Your task to perform on an android device: turn on priority inbox in the gmail app Image 0: 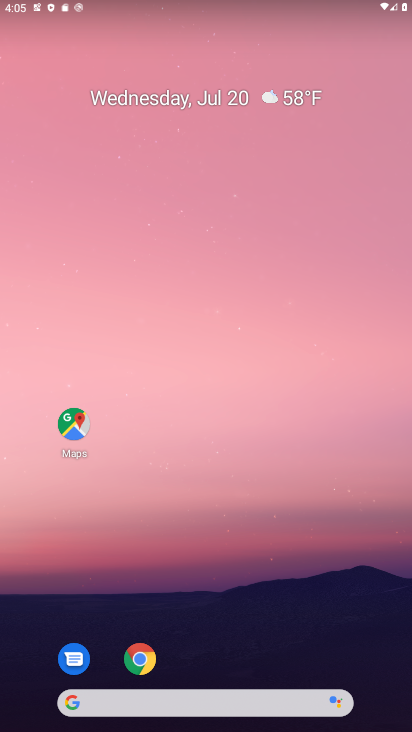
Step 0: drag from (280, 587) to (224, 169)
Your task to perform on an android device: turn on priority inbox in the gmail app Image 1: 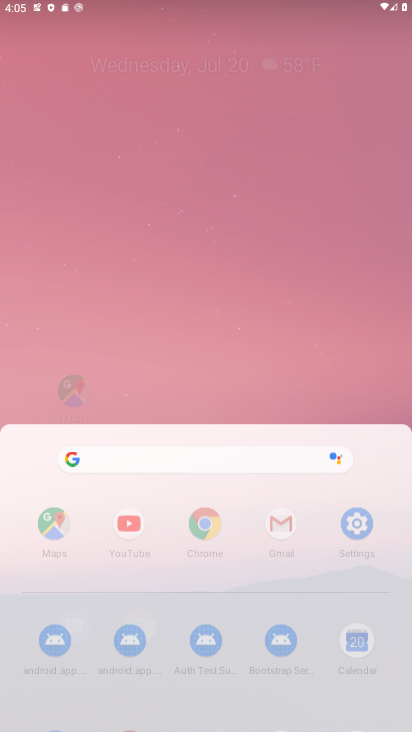
Step 1: drag from (169, 580) to (158, 202)
Your task to perform on an android device: turn on priority inbox in the gmail app Image 2: 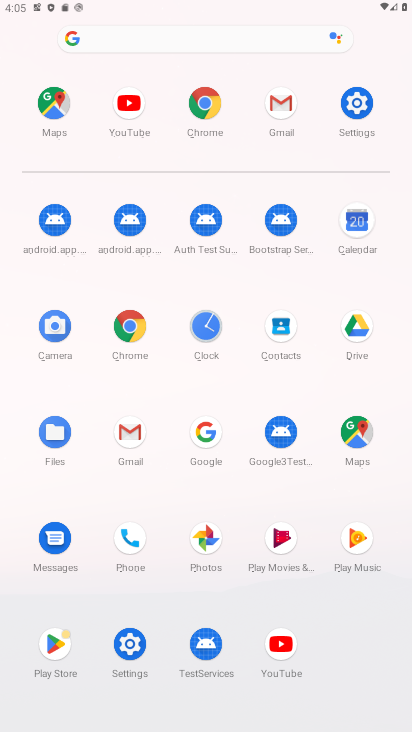
Step 2: click (136, 431)
Your task to perform on an android device: turn on priority inbox in the gmail app Image 3: 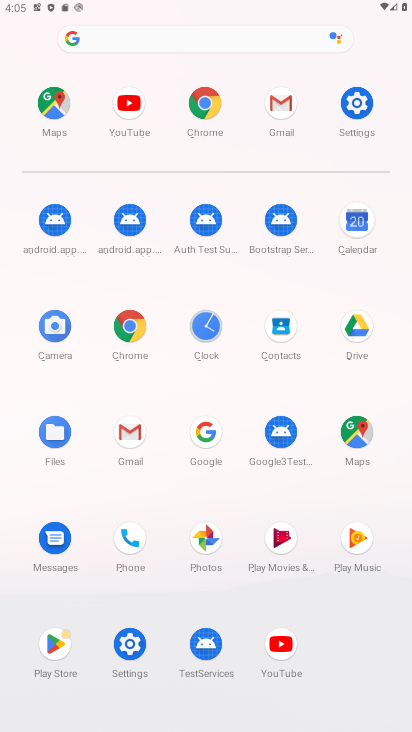
Step 3: click (127, 429)
Your task to perform on an android device: turn on priority inbox in the gmail app Image 4: 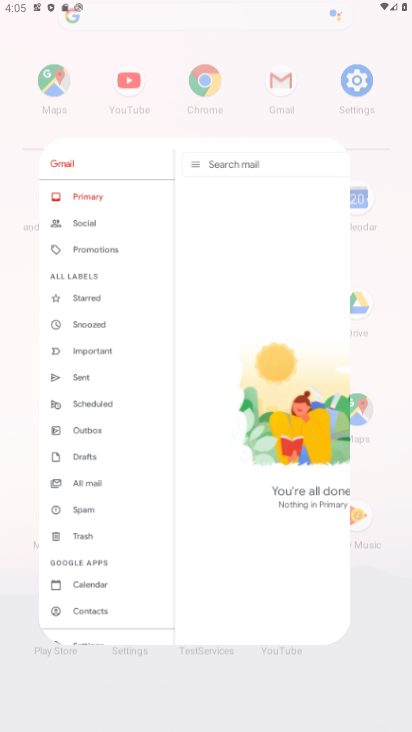
Step 4: click (128, 425)
Your task to perform on an android device: turn on priority inbox in the gmail app Image 5: 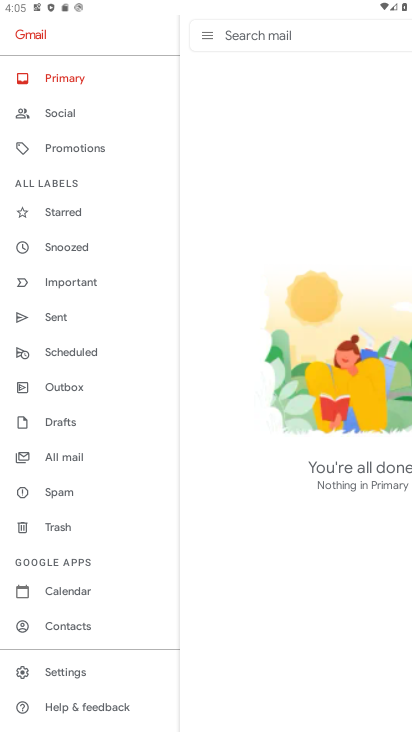
Step 5: click (130, 425)
Your task to perform on an android device: turn on priority inbox in the gmail app Image 6: 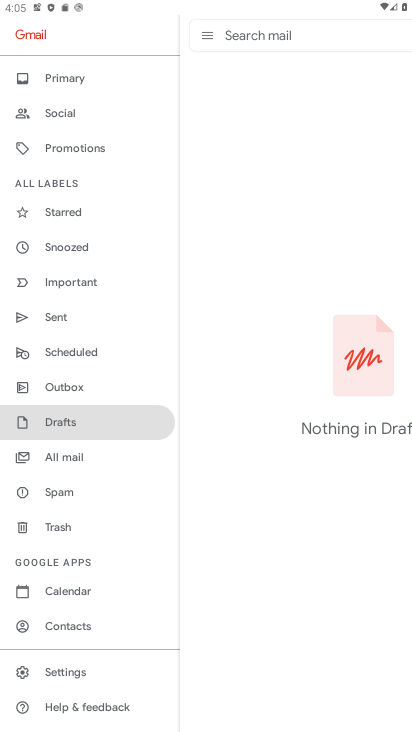
Step 6: click (65, 670)
Your task to perform on an android device: turn on priority inbox in the gmail app Image 7: 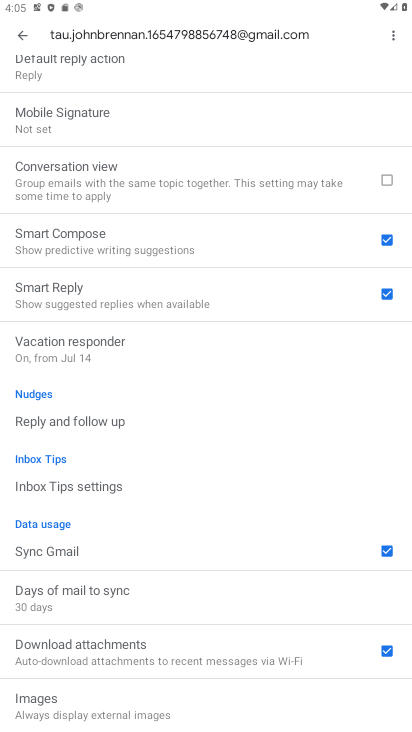
Step 7: drag from (55, 116) to (139, 569)
Your task to perform on an android device: turn on priority inbox in the gmail app Image 8: 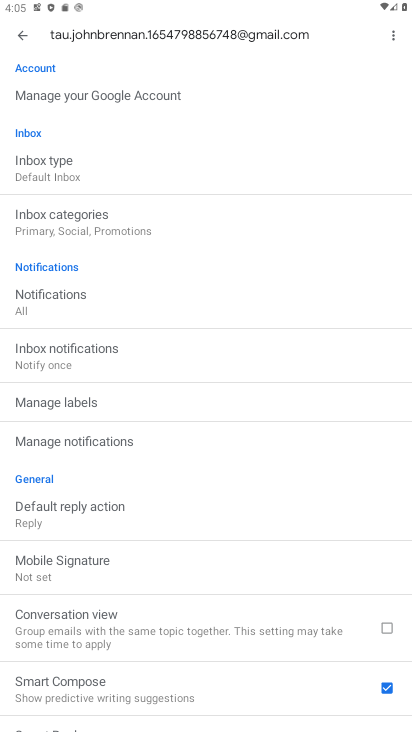
Step 8: click (31, 170)
Your task to perform on an android device: turn on priority inbox in the gmail app Image 9: 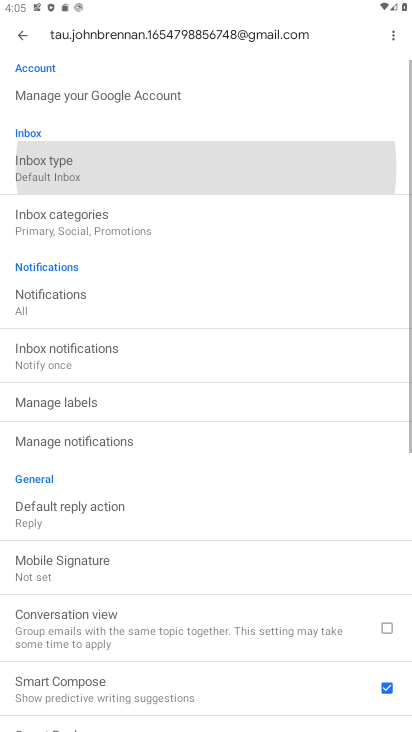
Step 9: click (31, 170)
Your task to perform on an android device: turn on priority inbox in the gmail app Image 10: 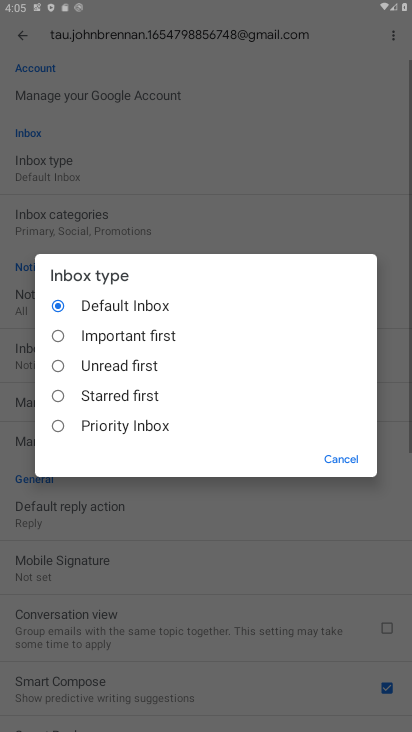
Step 10: click (31, 170)
Your task to perform on an android device: turn on priority inbox in the gmail app Image 11: 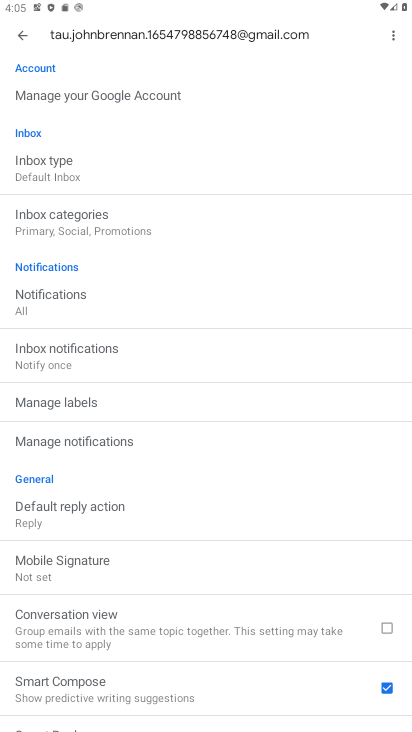
Step 11: click (36, 176)
Your task to perform on an android device: turn on priority inbox in the gmail app Image 12: 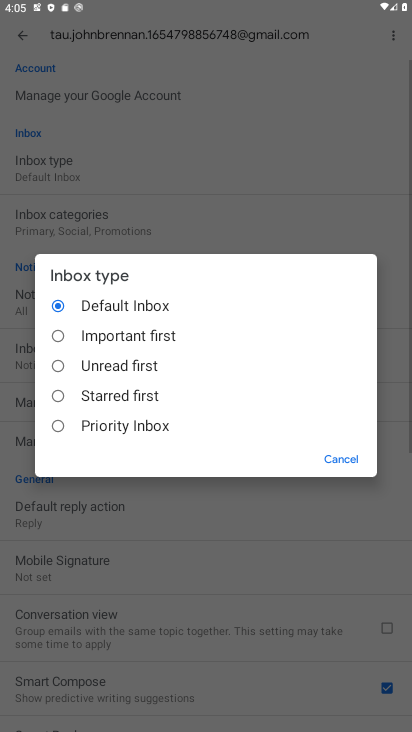
Step 12: click (60, 421)
Your task to perform on an android device: turn on priority inbox in the gmail app Image 13: 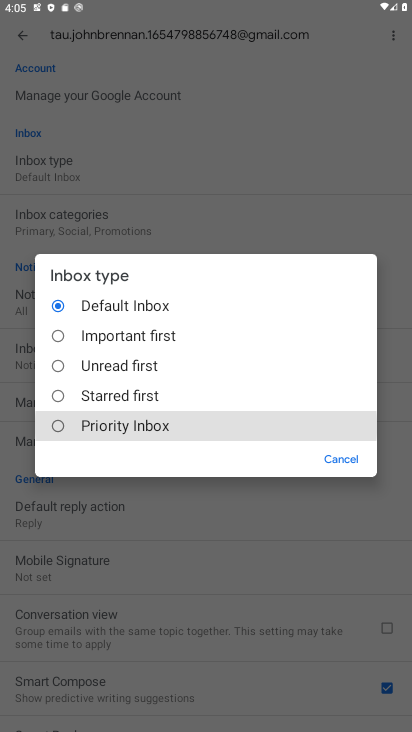
Step 13: click (61, 421)
Your task to perform on an android device: turn on priority inbox in the gmail app Image 14: 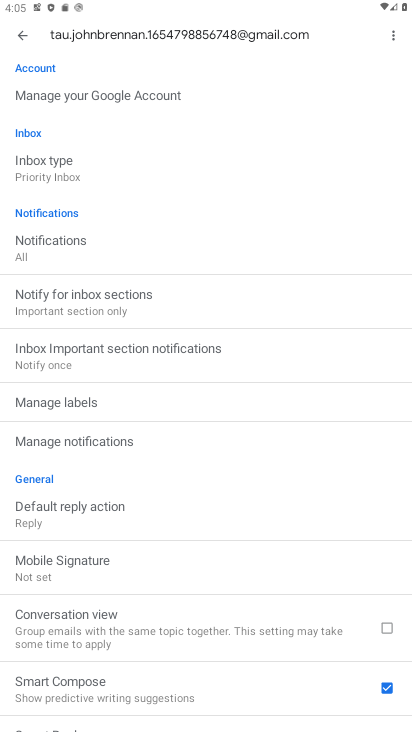
Step 14: task complete